Your task to perform on an android device: turn on the 24-hour format for clock Image 0: 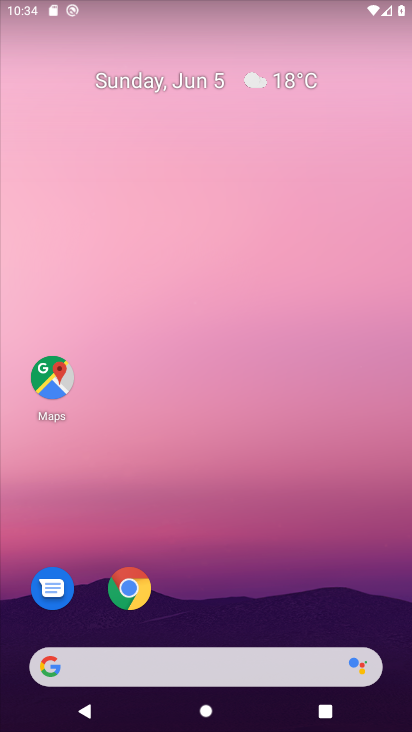
Step 0: drag from (311, 572) to (291, 239)
Your task to perform on an android device: turn on the 24-hour format for clock Image 1: 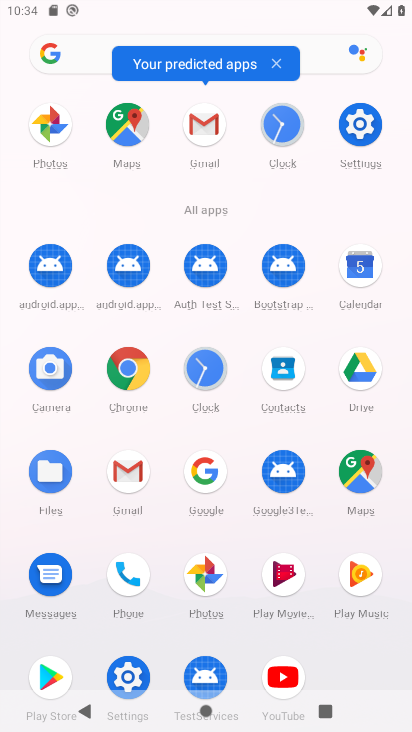
Step 1: click (215, 374)
Your task to perform on an android device: turn on the 24-hour format for clock Image 2: 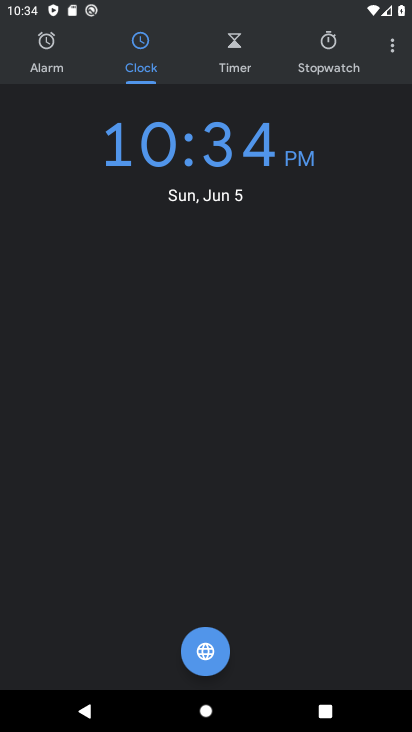
Step 2: drag from (400, 58) to (289, 90)
Your task to perform on an android device: turn on the 24-hour format for clock Image 3: 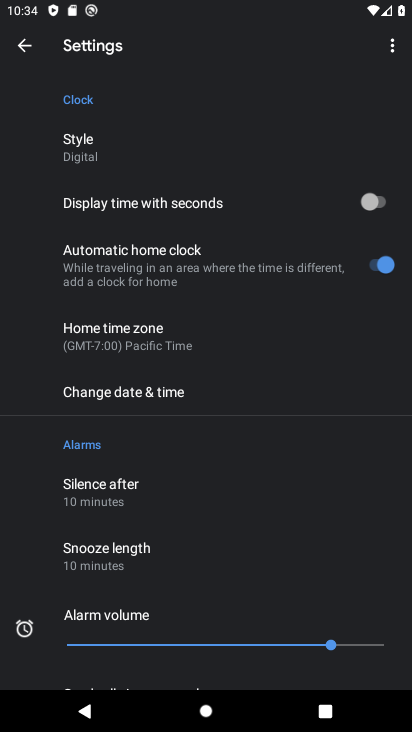
Step 3: click (218, 385)
Your task to perform on an android device: turn on the 24-hour format for clock Image 4: 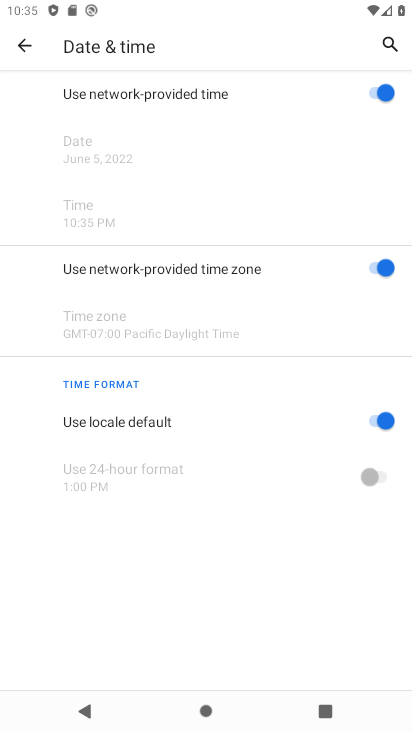
Step 4: click (377, 422)
Your task to perform on an android device: turn on the 24-hour format for clock Image 5: 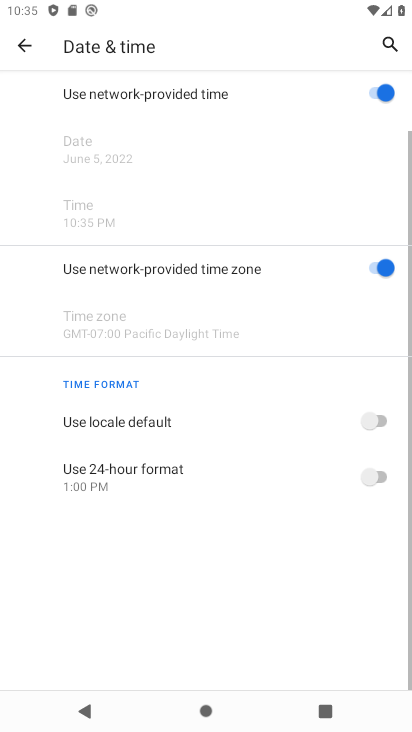
Step 5: click (384, 479)
Your task to perform on an android device: turn on the 24-hour format for clock Image 6: 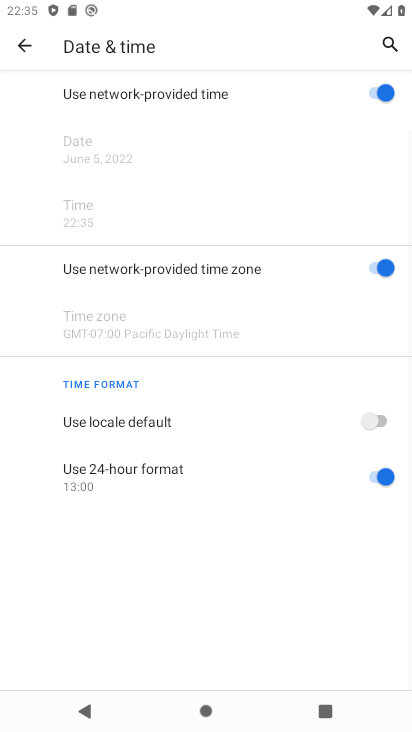
Step 6: task complete